Your task to perform on an android device: check android version Image 0: 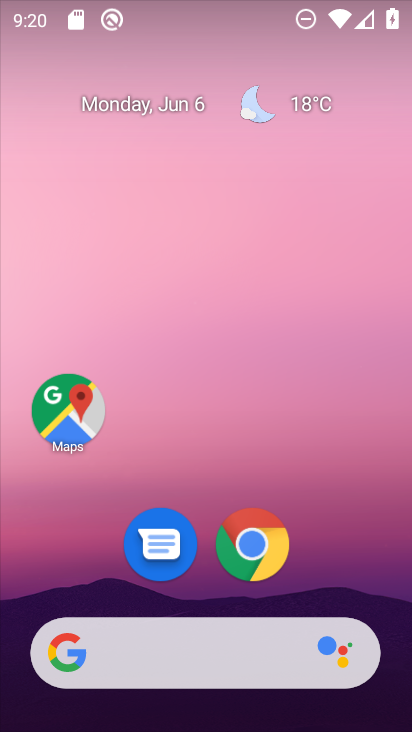
Step 0: drag from (390, 645) to (287, 110)
Your task to perform on an android device: check android version Image 1: 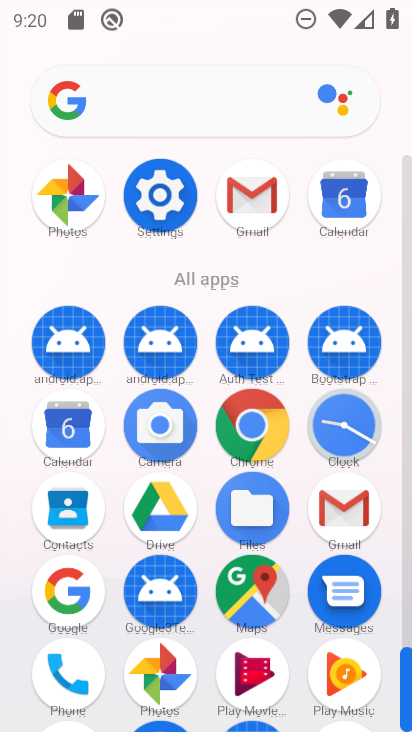
Step 1: click (403, 626)
Your task to perform on an android device: check android version Image 2: 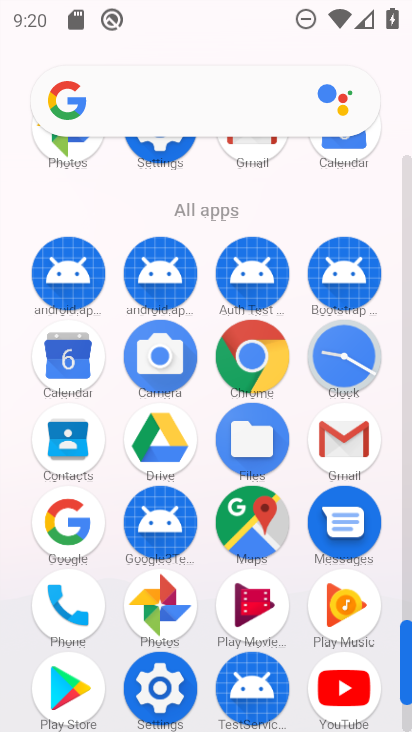
Step 2: click (155, 690)
Your task to perform on an android device: check android version Image 3: 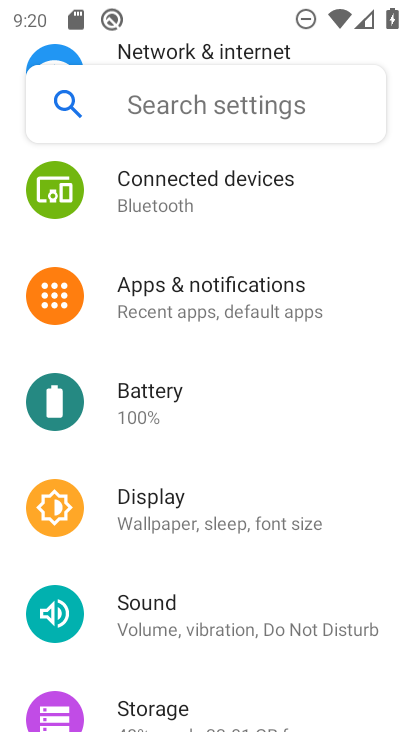
Step 3: drag from (327, 680) to (282, 223)
Your task to perform on an android device: check android version Image 4: 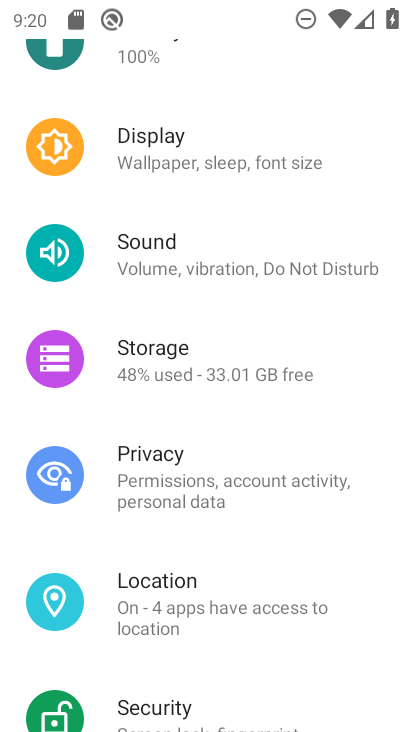
Step 4: drag from (322, 652) to (283, 219)
Your task to perform on an android device: check android version Image 5: 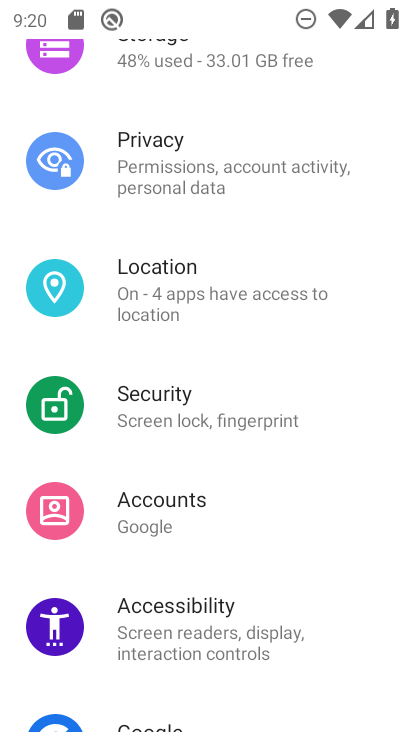
Step 5: drag from (338, 697) to (252, 185)
Your task to perform on an android device: check android version Image 6: 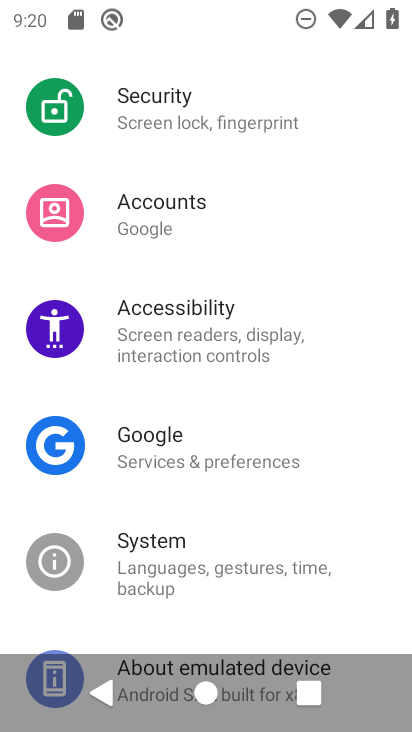
Step 6: drag from (341, 611) to (269, 194)
Your task to perform on an android device: check android version Image 7: 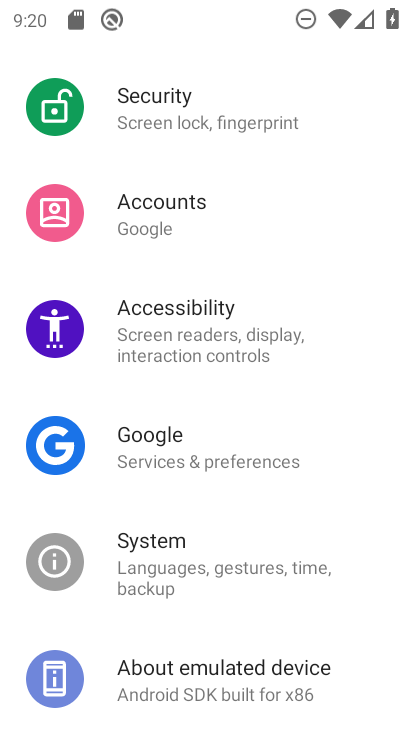
Step 7: click (242, 673)
Your task to perform on an android device: check android version Image 8: 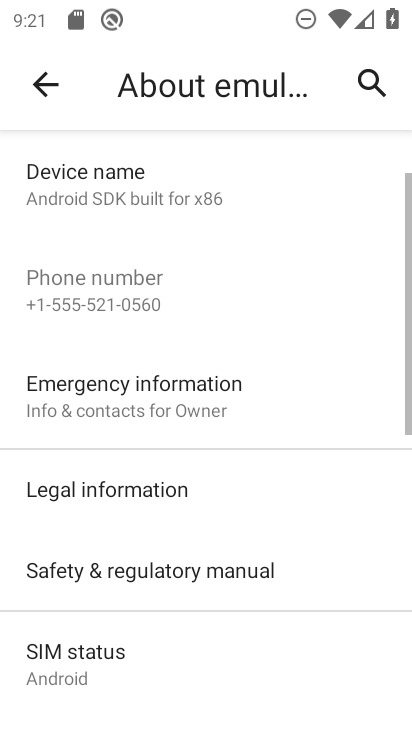
Step 8: drag from (290, 693) to (218, 304)
Your task to perform on an android device: check android version Image 9: 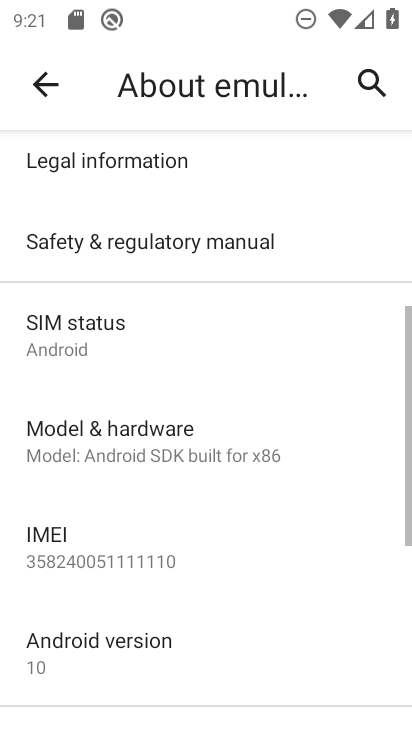
Step 9: click (98, 653)
Your task to perform on an android device: check android version Image 10: 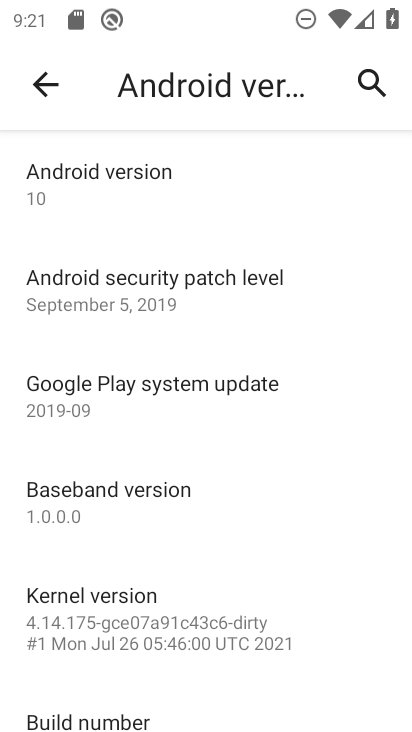
Step 10: click (67, 170)
Your task to perform on an android device: check android version Image 11: 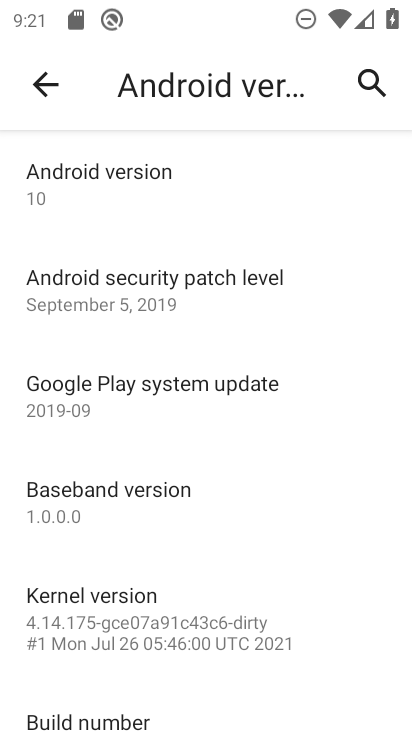
Step 11: task complete